Your task to perform on an android device: Open eBay Image 0: 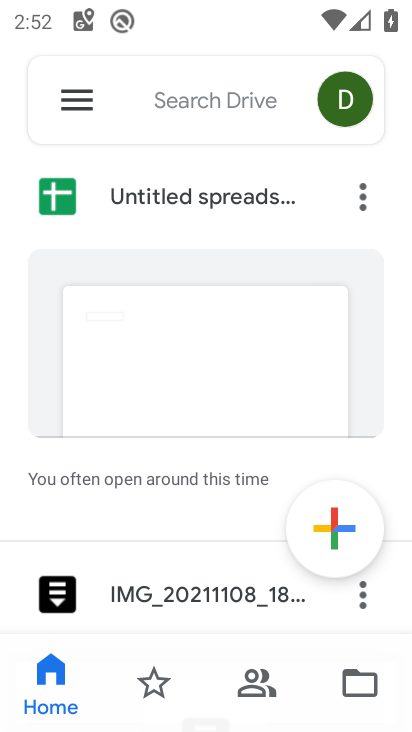
Step 0: press home button
Your task to perform on an android device: Open eBay Image 1: 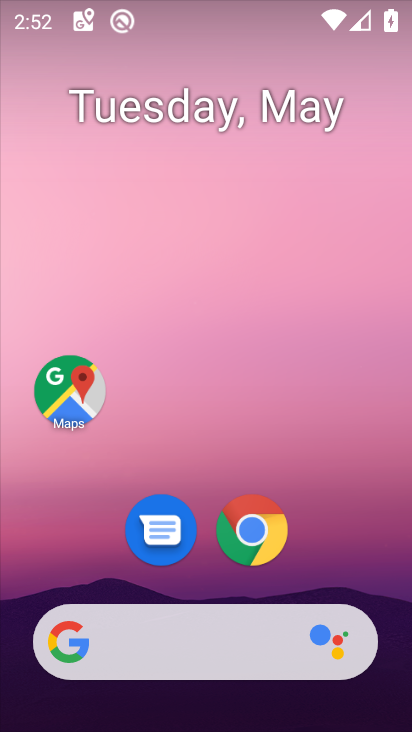
Step 1: click (240, 530)
Your task to perform on an android device: Open eBay Image 2: 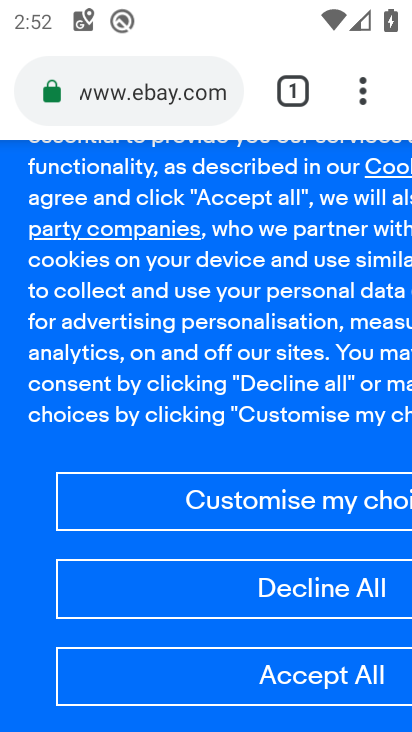
Step 2: task complete